Your task to perform on an android device: empty trash in the gmail app Image 0: 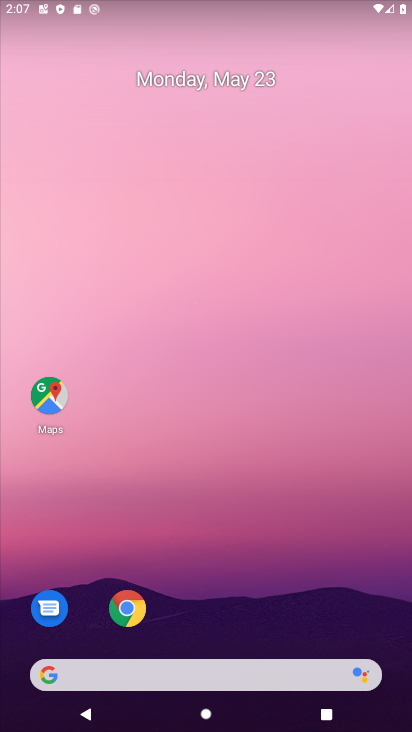
Step 0: drag from (221, 661) to (164, 98)
Your task to perform on an android device: empty trash in the gmail app Image 1: 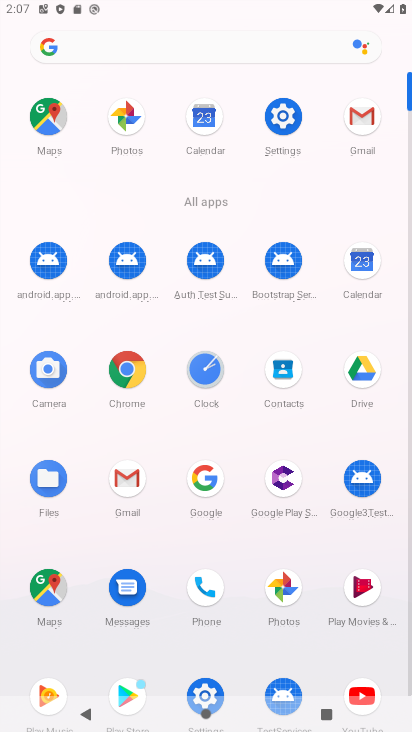
Step 1: click (124, 490)
Your task to perform on an android device: empty trash in the gmail app Image 2: 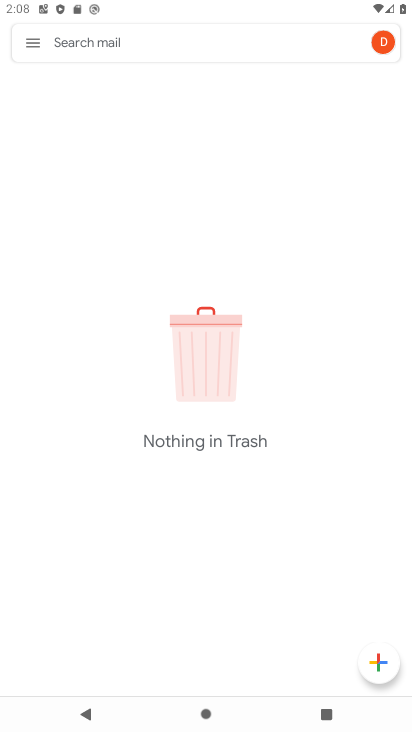
Step 2: click (33, 44)
Your task to perform on an android device: empty trash in the gmail app Image 3: 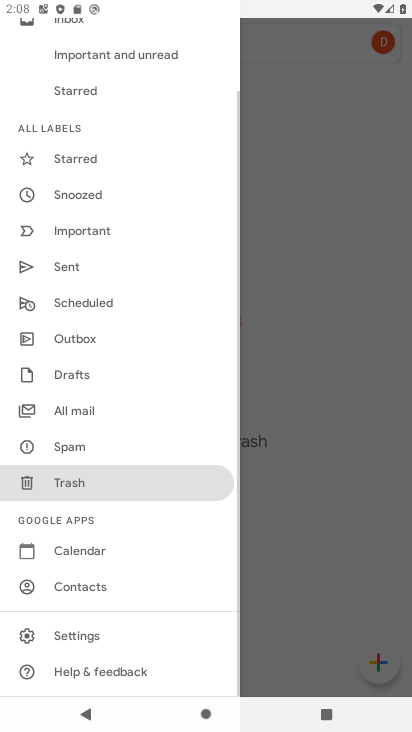
Step 3: click (100, 475)
Your task to perform on an android device: empty trash in the gmail app Image 4: 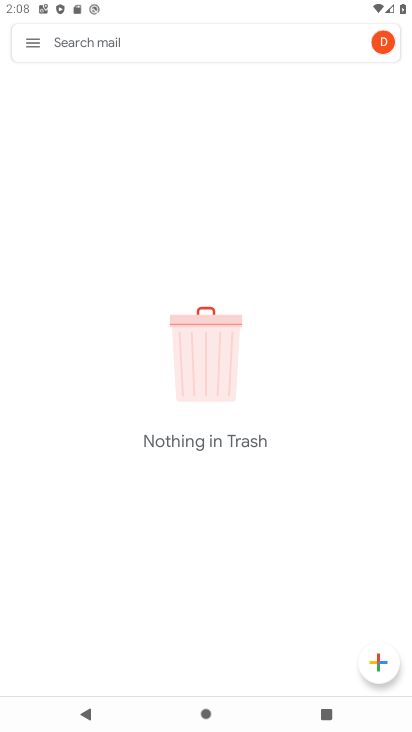
Step 4: task complete